Your task to perform on an android device: Open Google Image 0: 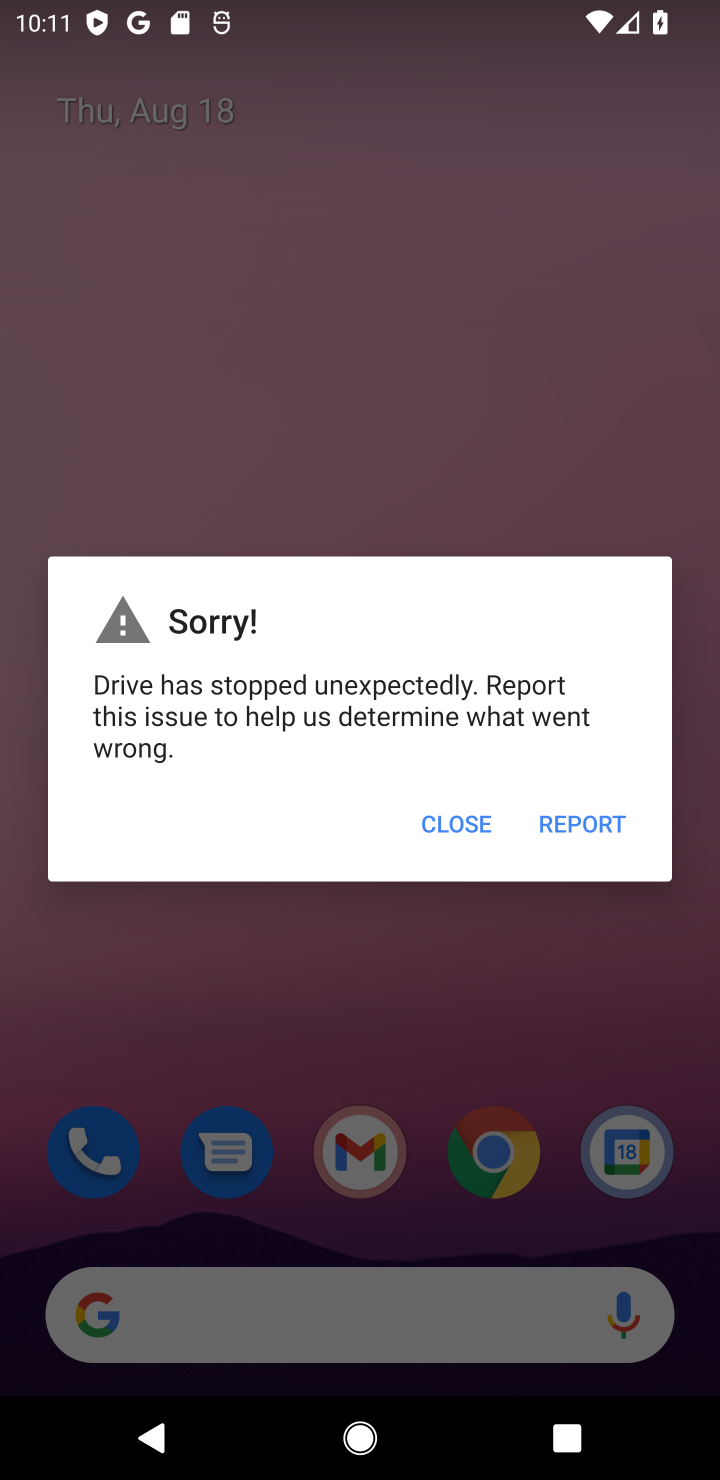
Step 0: press home button
Your task to perform on an android device: Open Google Image 1: 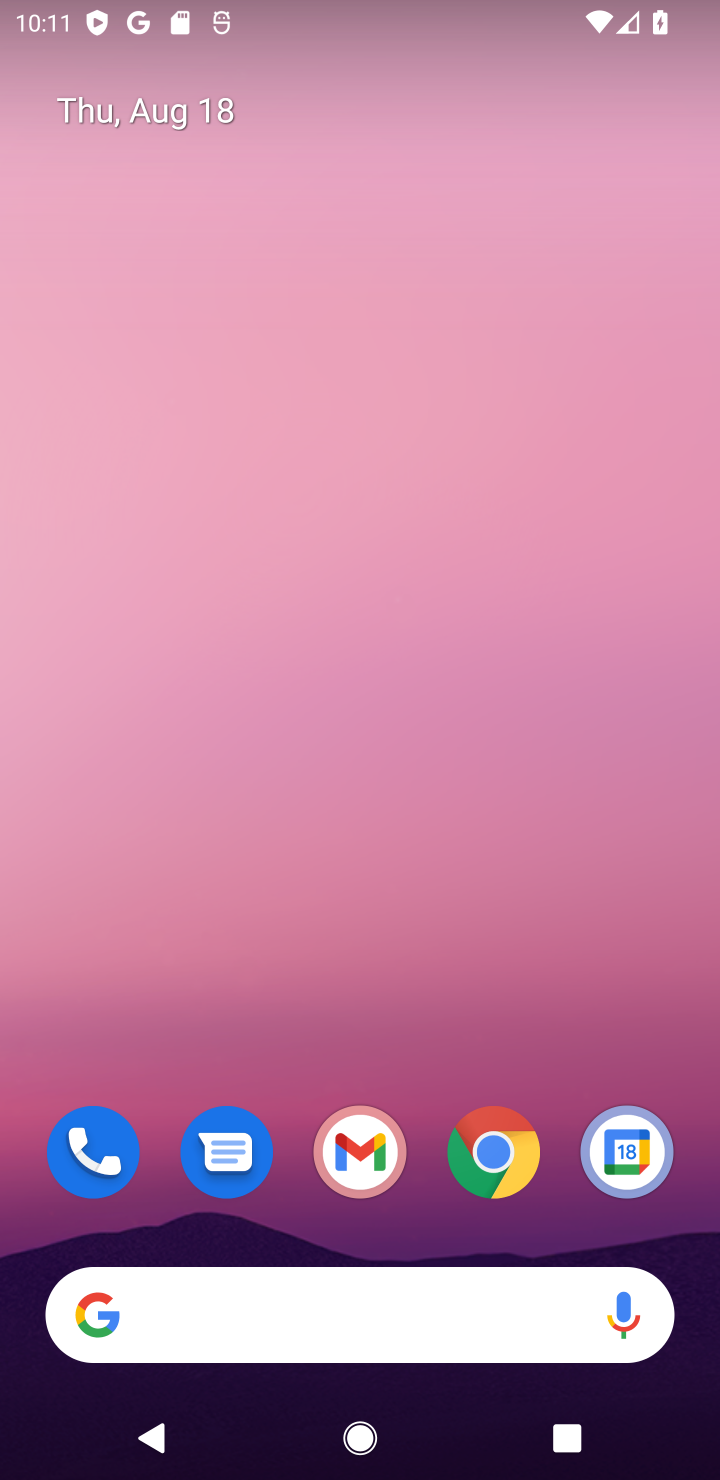
Step 1: click (248, 1318)
Your task to perform on an android device: Open Google Image 2: 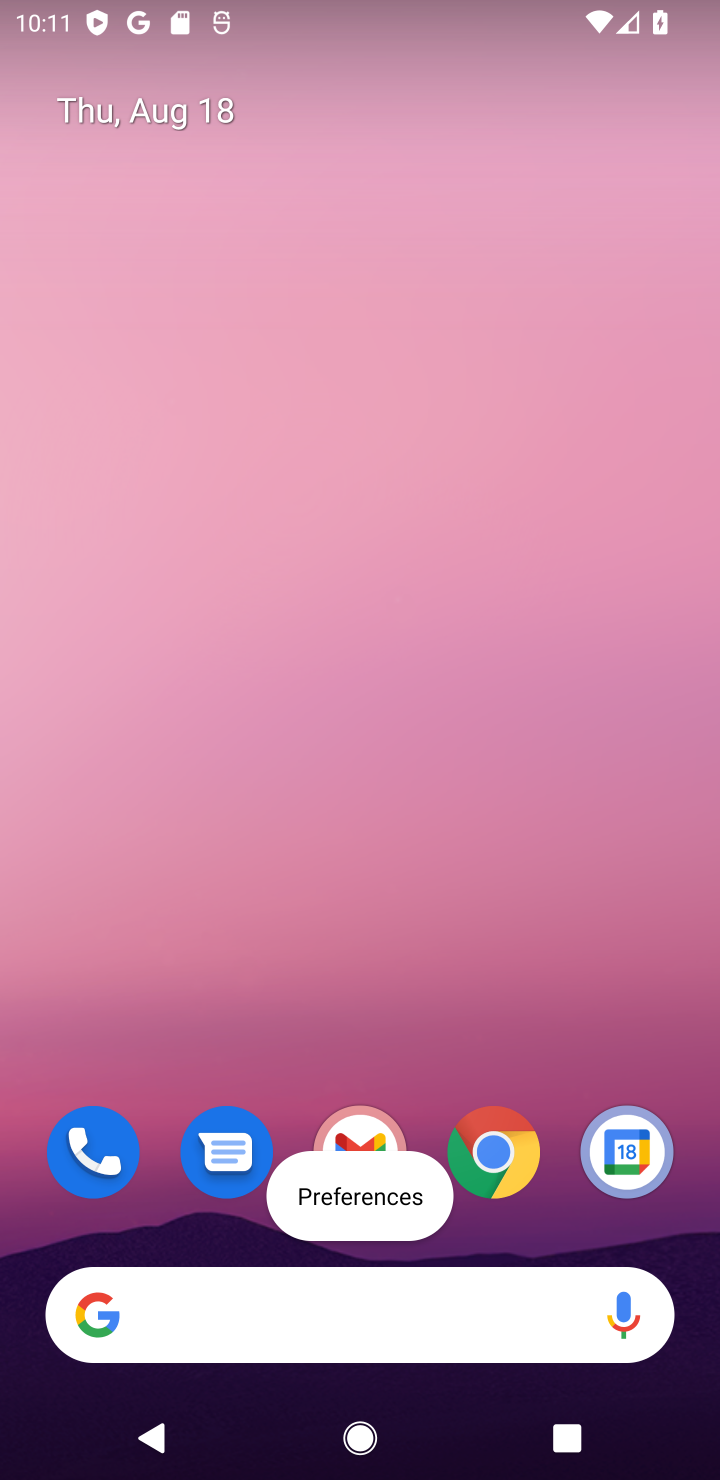
Step 2: click (235, 1318)
Your task to perform on an android device: Open Google Image 3: 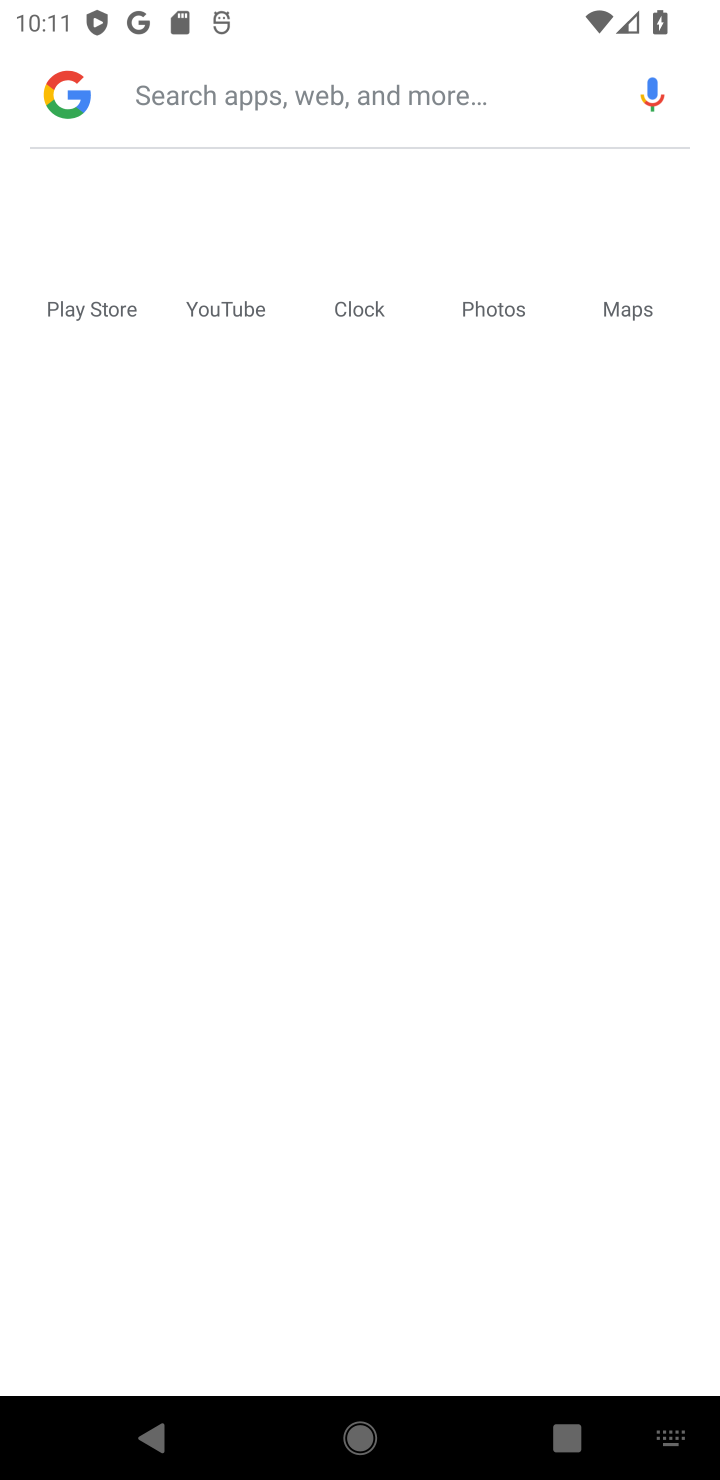
Step 3: click (65, 93)
Your task to perform on an android device: Open Google Image 4: 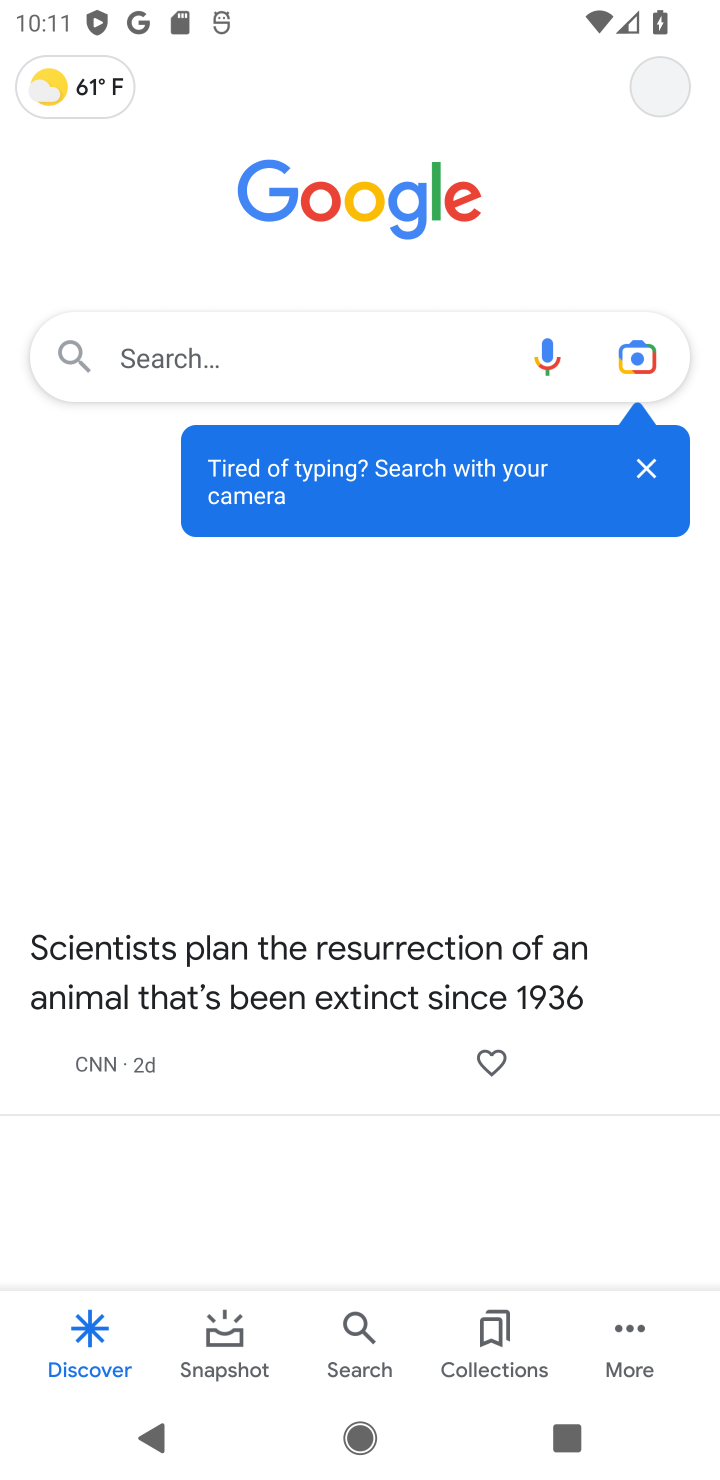
Step 4: task complete